Your task to perform on an android device: Open display settings Image 0: 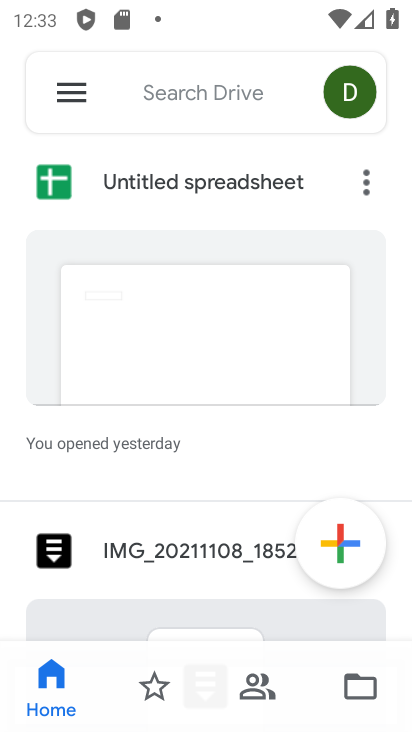
Step 0: press home button
Your task to perform on an android device: Open display settings Image 1: 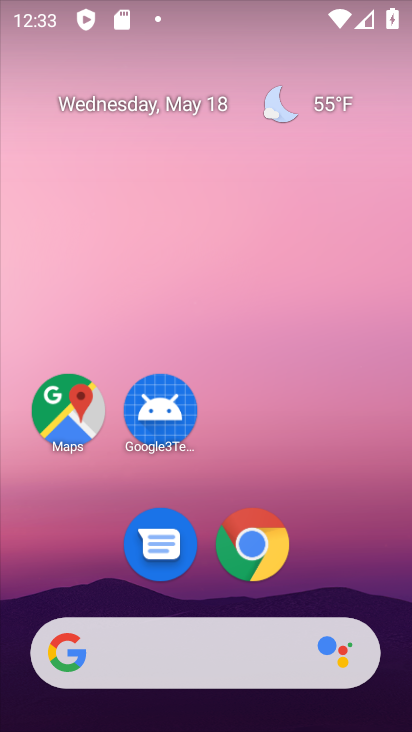
Step 1: drag from (206, 581) to (255, 57)
Your task to perform on an android device: Open display settings Image 2: 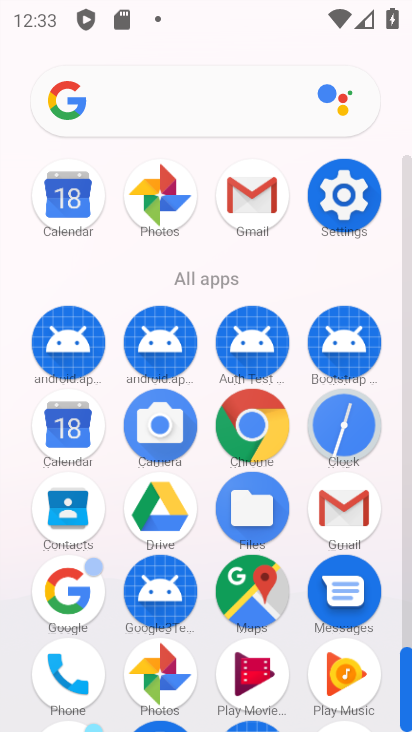
Step 2: click (332, 207)
Your task to perform on an android device: Open display settings Image 3: 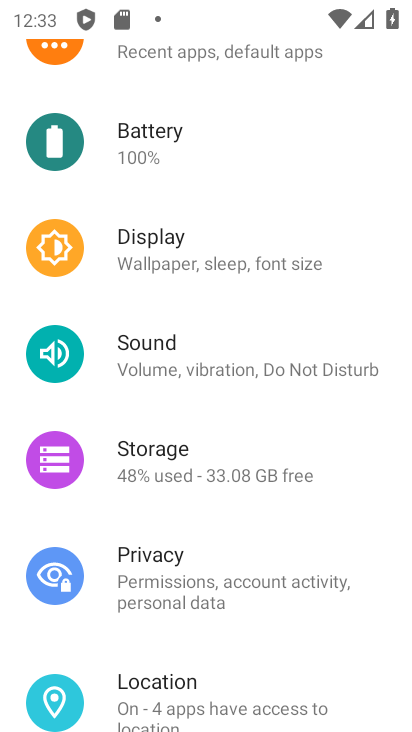
Step 3: drag from (243, 188) to (197, 484)
Your task to perform on an android device: Open display settings Image 4: 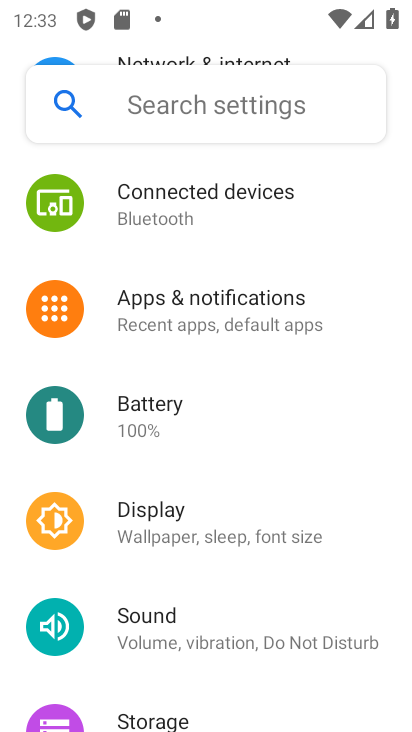
Step 4: click (139, 516)
Your task to perform on an android device: Open display settings Image 5: 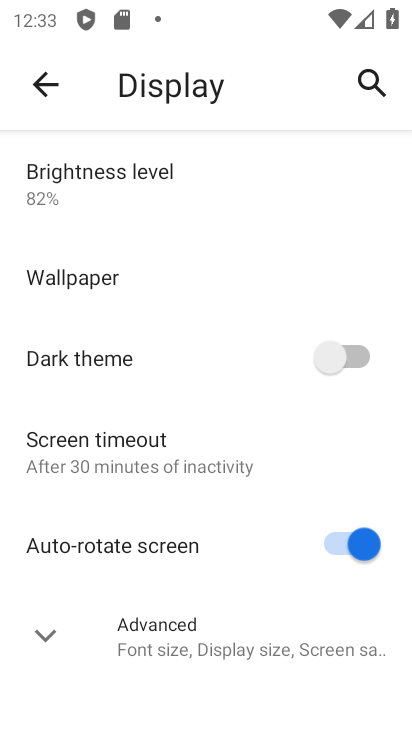
Step 5: task complete